Your task to perform on an android device: Go to Maps Image 0: 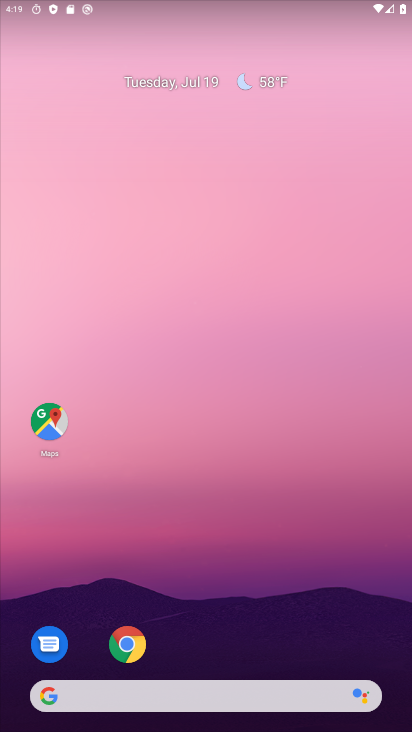
Step 0: click (48, 412)
Your task to perform on an android device: Go to Maps Image 1: 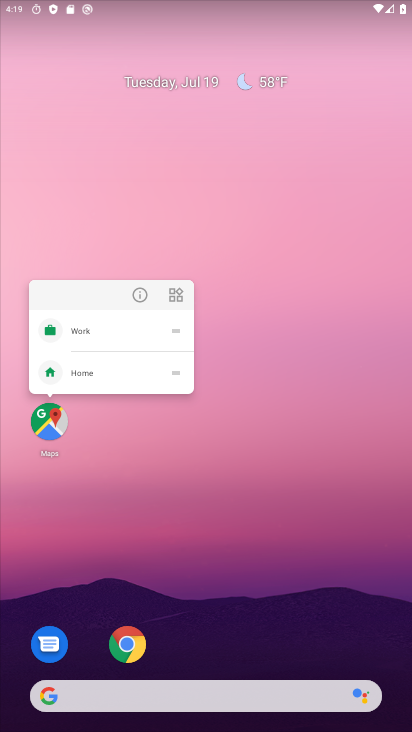
Step 1: click (41, 422)
Your task to perform on an android device: Go to Maps Image 2: 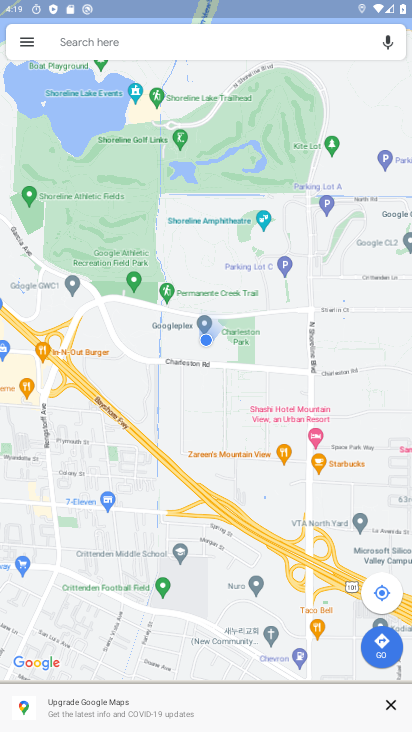
Step 2: task complete